Your task to perform on an android device: Show me productivity apps on the Play Store Image 0: 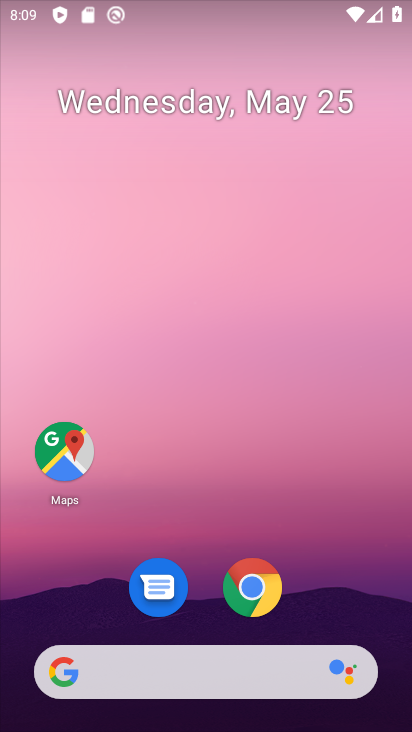
Step 0: drag from (296, 594) to (336, 223)
Your task to perform on an android device: Show me productivity apps on the Play Store Image 1: 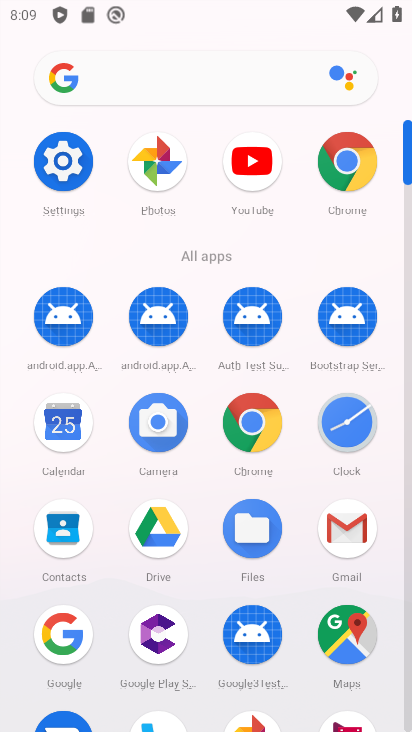
Step 1: drag from (311, 267) to (335, 62)
Your task to perform on an android device: Show me productivity apps on the Play Store Image 2: 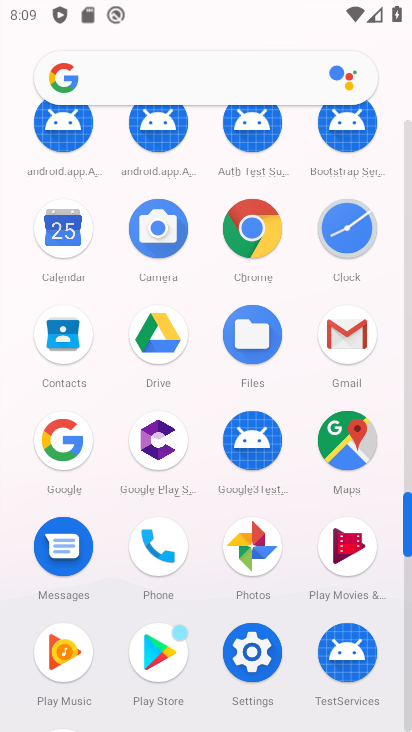
Step 2: click (158, 642)
Your task to perform on an android device: Show me productivity apps on the Play Store Image 3: 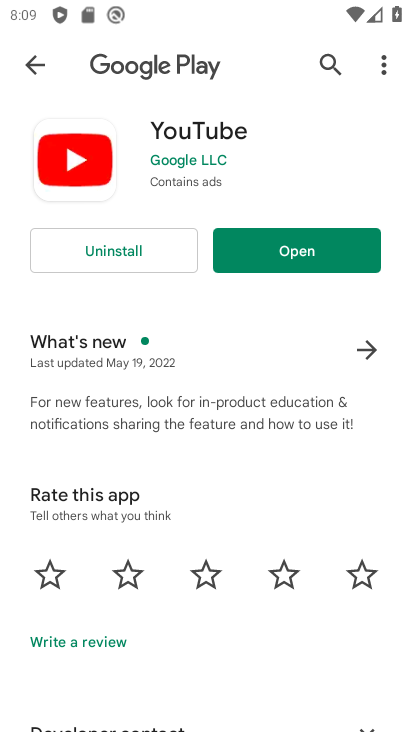
Step 3: click (34, 69)
Your task to perform on an android device: Show me productivity apps on the Play Store Image 4: 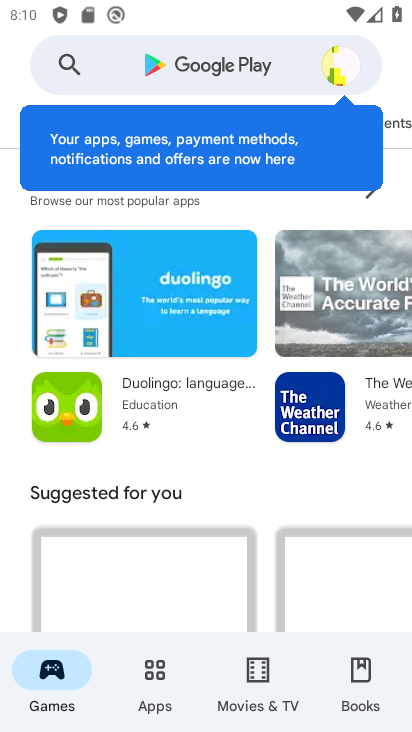
Step 4: click (232, 61)
Your task to perform on an android device: Show me productivity apps on the Play Store Image 5: 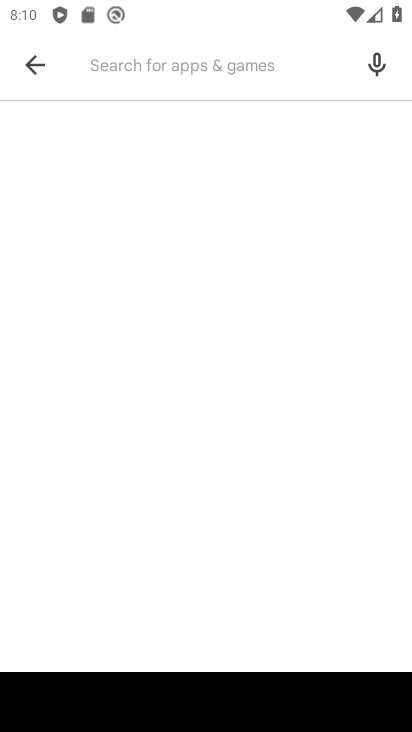
Step 5: type "productivity apps "
Your task to perform on an android device: Show me productivity apps on the Play Store Image 6: 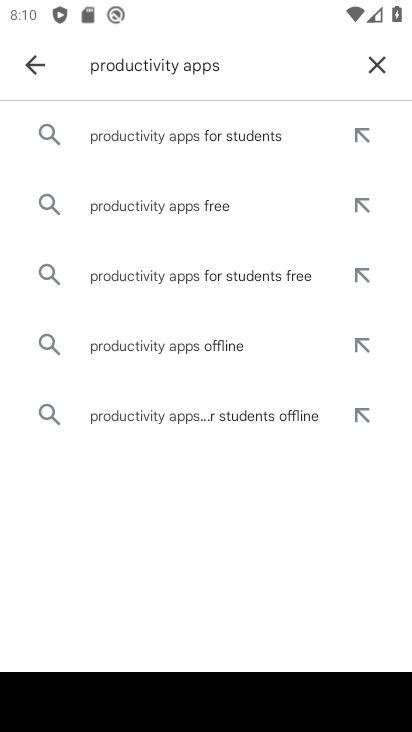
Step 6: click (180, 203)
Your task to perform on an android device: Show me productivity apps on the Play Store Image 7: 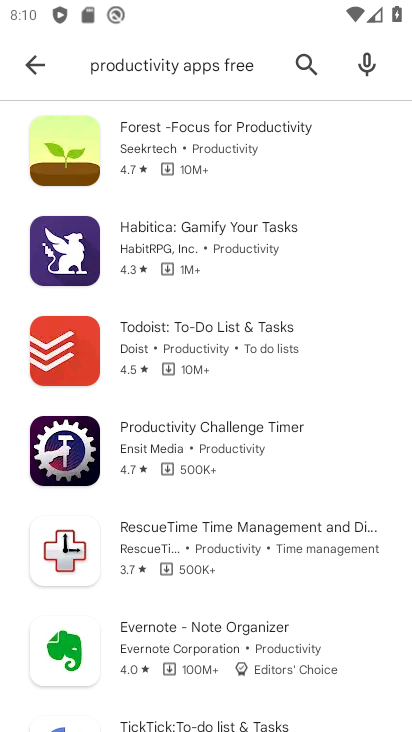
Step 7: task complete